Your task to perform on an android device: add a contact in the contacts app Image 0: 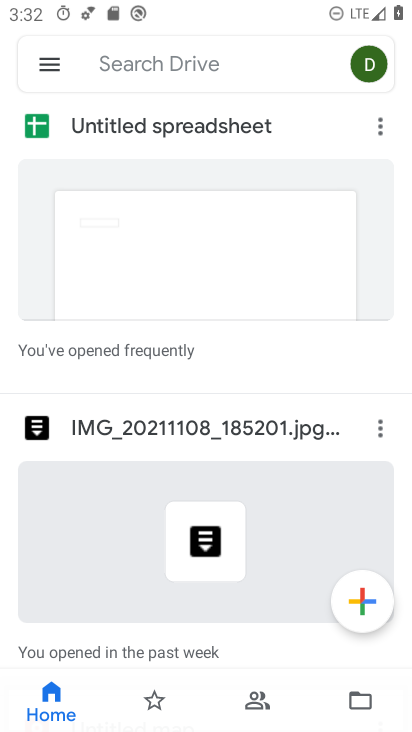
Step 0: press home button
Your task to perform on an android device: add a contact in the contacts app Image 1: 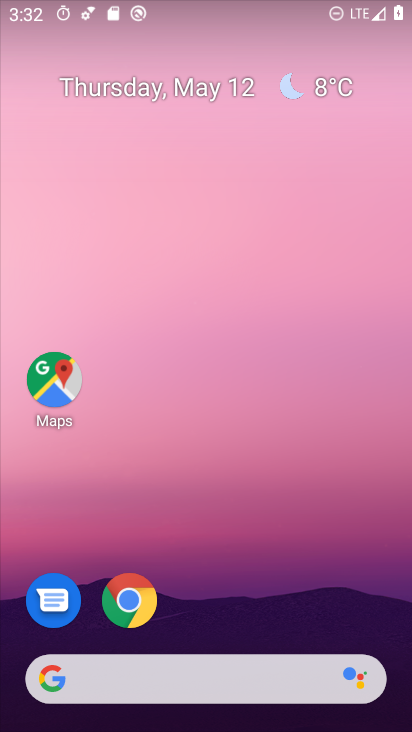
Step 1: drag from (205, 703) to (216, 199)
Your task to perform on an android device: add a contact in the contacts app Image 2: 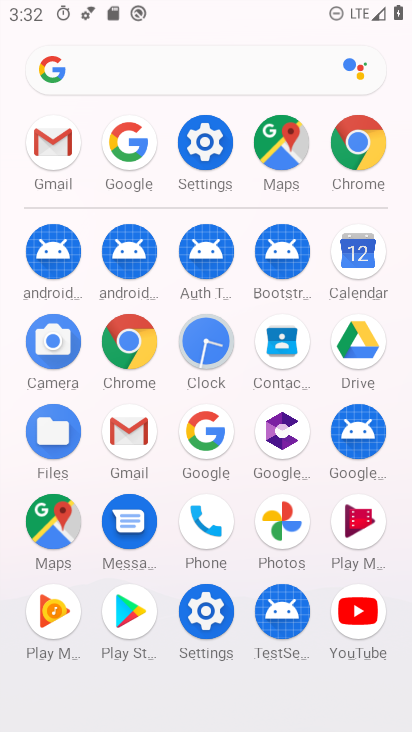
Step 2: click (279, 349)
Your task to perform on an android device: add a contact in the contacts app Image 3: 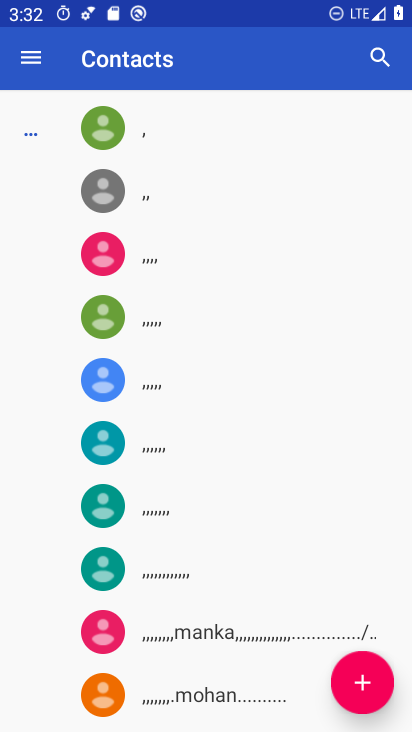
Step 3: click (362, 677)
Your task to perform on an android device: add a contact in the contacts app Image 4: 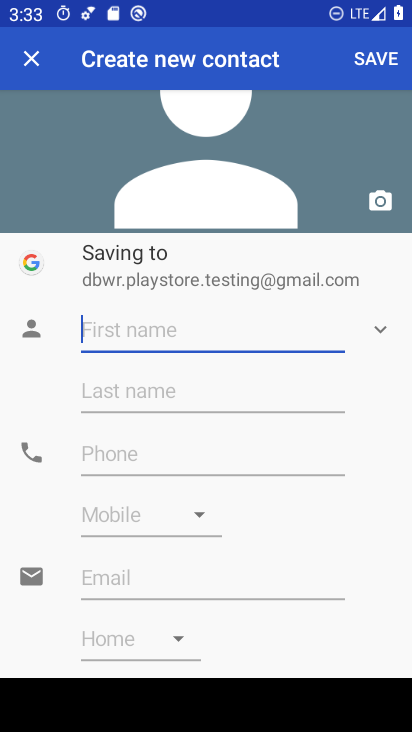
Step 4: type "tan singh"
Your task to perform on an android device: add a contact in the contacts app Image 5: 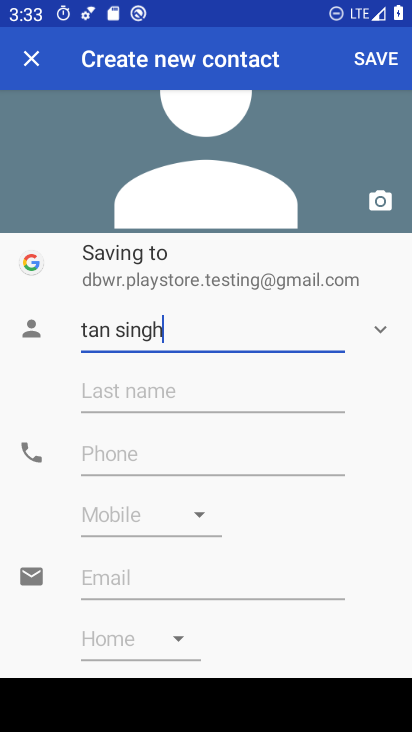
Step 5: click (125, 456)
Your task to perform on an android device: add a contact in the contacts app Image 6: 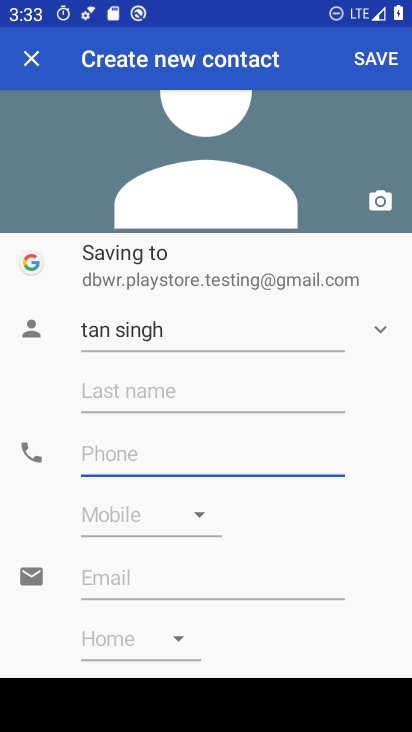
Step 6: type "98765"
Your task to perform on an android device: add a contact in the contacts app Image 7: 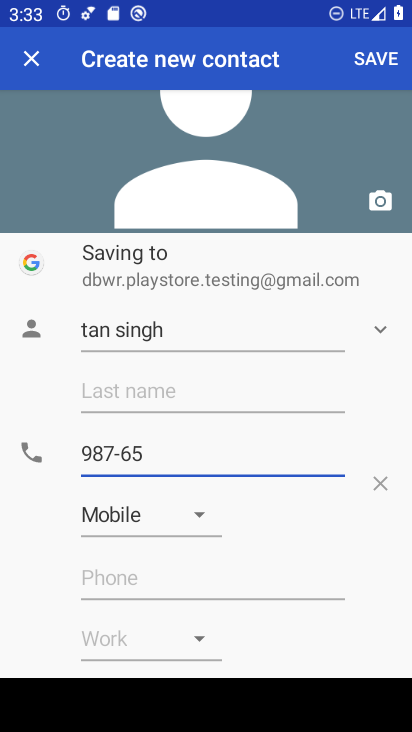
Step 7: click (380, 53)
Your task to perform on an android device: add a contact in the contacts app Image 8: 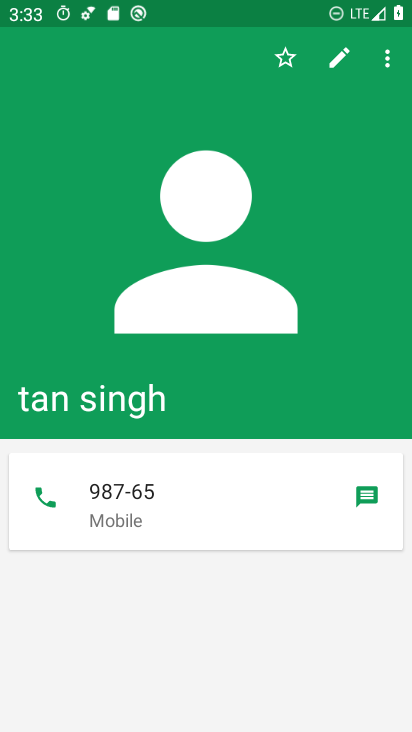
Step 8: task complete